Your task to perform on an android device: Open wifi settings Image 0: 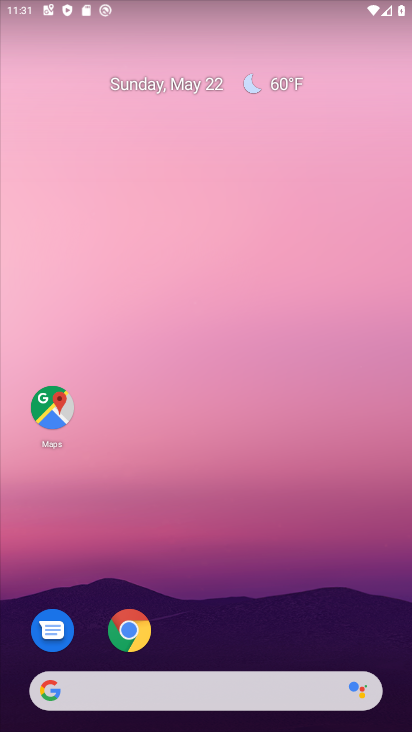
Step 0: drag from (275, 627) to (268, 173)
Your task to perform on an android device: Open wifi settings Image 1: 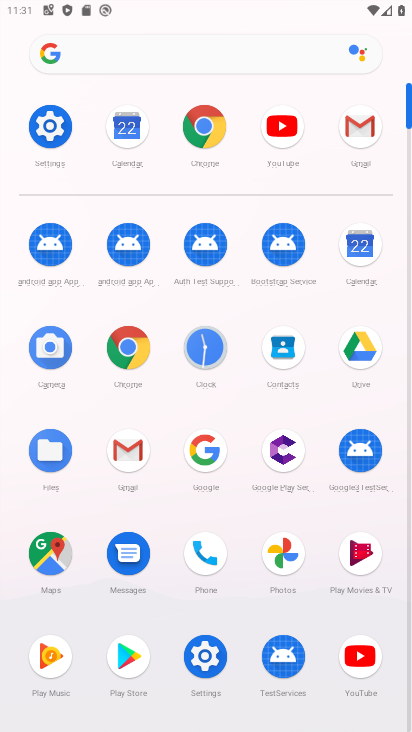
Step 1: click (48, 122)
Your task to perform on an android device: Open wifi settings Image 2: 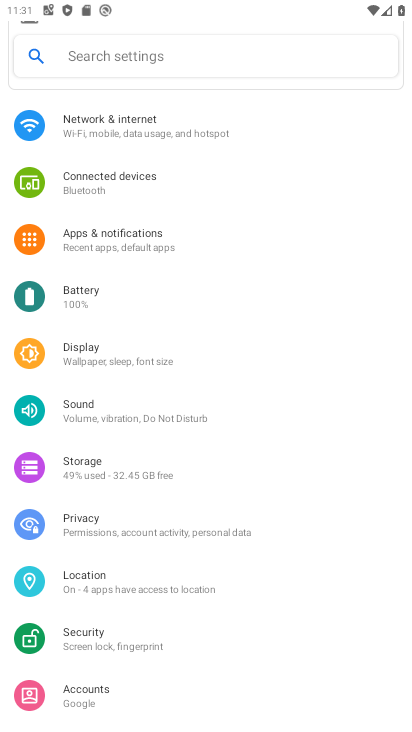
Step 2: click (106, 128)
Your task to perform on an android device: Open wifi settings Image 3: 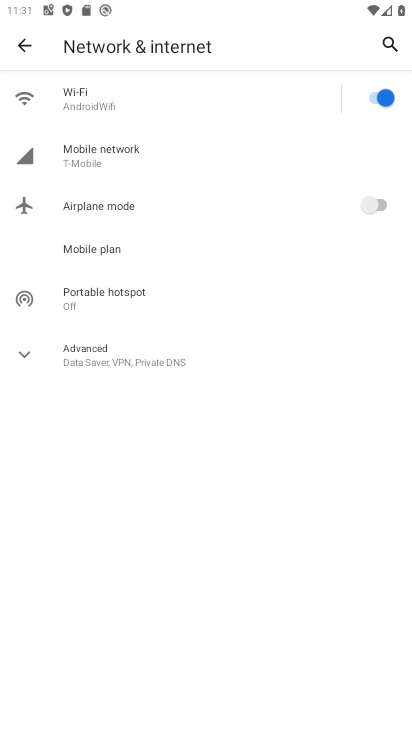
Step 3: click (83, 101)
Your task to perform on an android device: Open wifi settings Image 4: 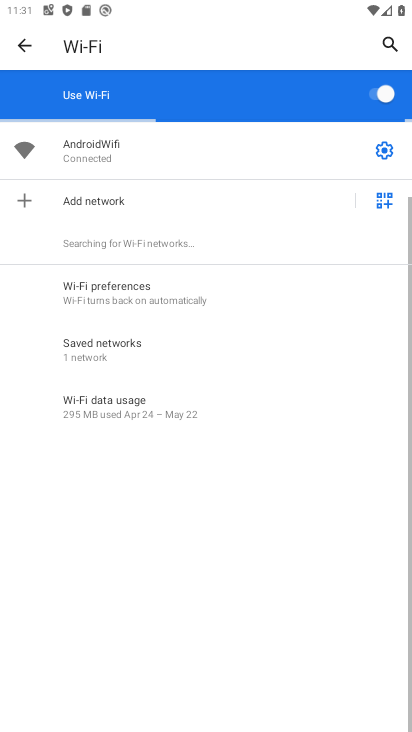
Step 4: click (382, 155)
Your task to perform on an android device: Open wifi settings Image 5: 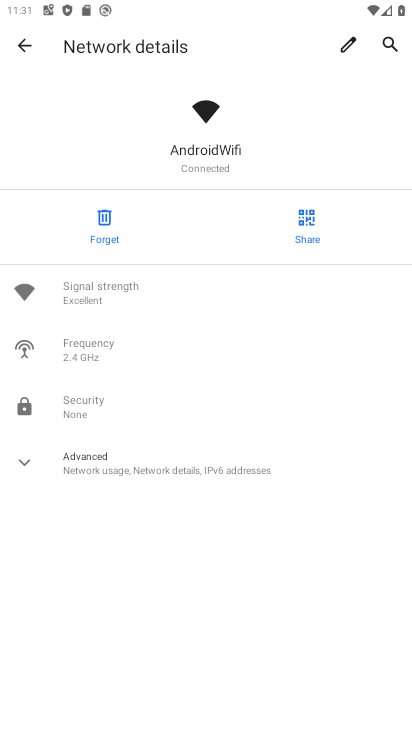
Step 5: task complete